Your task to perform on an android device: open app "YouTube Kids" (install if not already installed) Image 0: 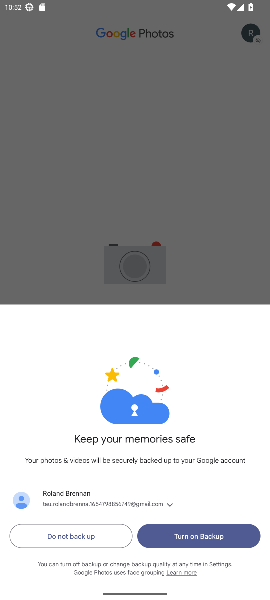
Step 0: press home button
Your task to perform on an android device: open app "YouTube Kids" (install if not already installed) Image 1: 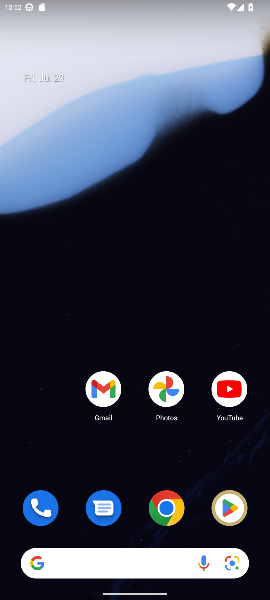
Step 1: drag from (185, 550) to (201, 75)
Your task to perform on an android device: open app "YouTube Kids" (install if not already installed) Image 2: 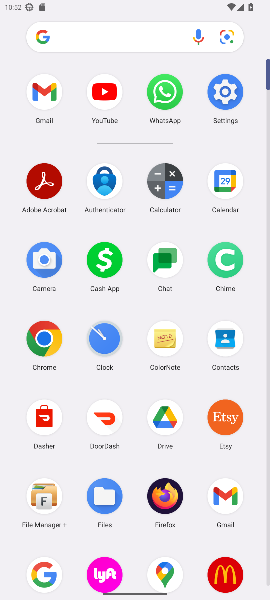
Step 2: drag from (198, 479) to (211, 148)
Your task to perform on an android device: open app "YouTube Kids" (install if not already installed) Image 3: 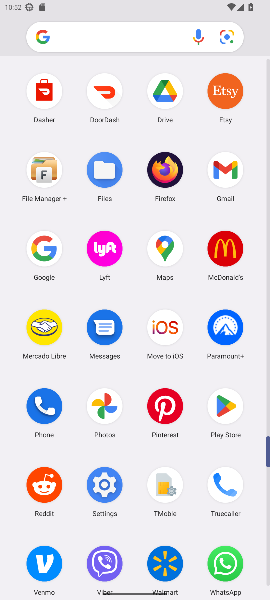
Step 3: click (229, 398)
Your task to perform on an android device: open app "YouTube Kids" (install if not already installed) Image 4: 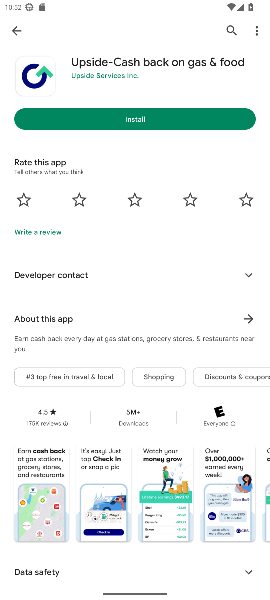
Step 4: click (230, 30)
Your task to perform on an android device: open app "YouTube Kids" (install if not already installed) Image 5: 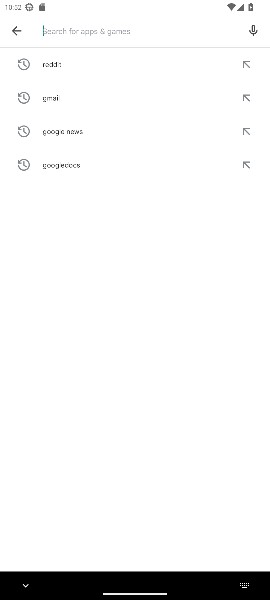
Step 5: type "you tube kids"
Your task to perform on an android device: open app "YouTube Kids" (install if not already installed) Image 6: 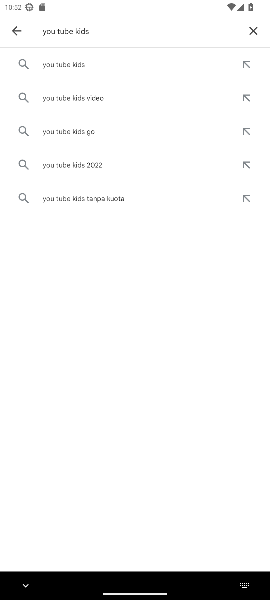
Step 6: click (85, 60)
Your task to perform on an android device: open app "YouTube Kids" (install if not already installed) Image 7: 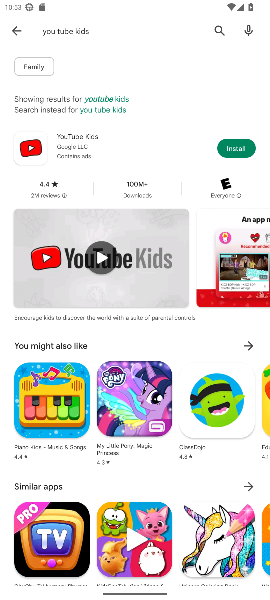
Step 7: click (247, 145)
Your task to perform on an android device: open app "YouTube Kids" (install if not already installed) Image 8: 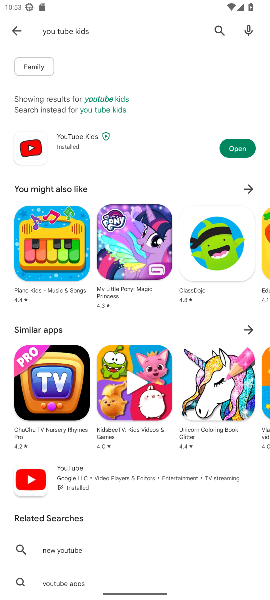
Step 8: click (239, 141)
Your task to perform on an android device: open app "YouTube Kids" (install if not already installed) Image 9: 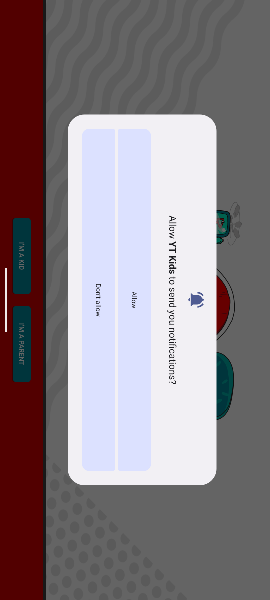
Step 9: task complete